Your task to perform on an android device: choose inbox layout in the gmail app Image 0: 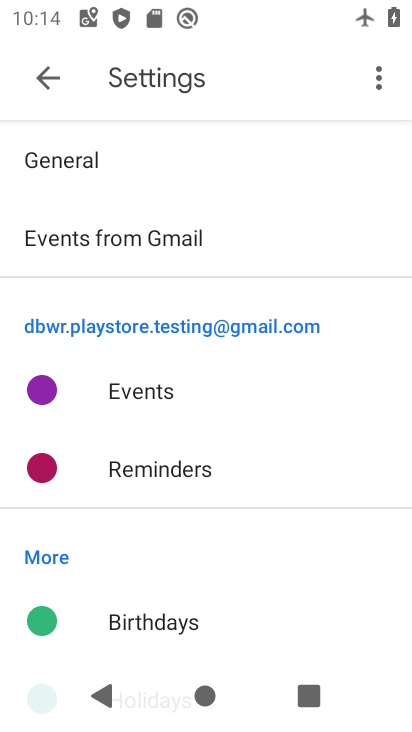
Step 0: press home button
Your task to perform on an android device: choose inbox layout in the gmail app Image 1: 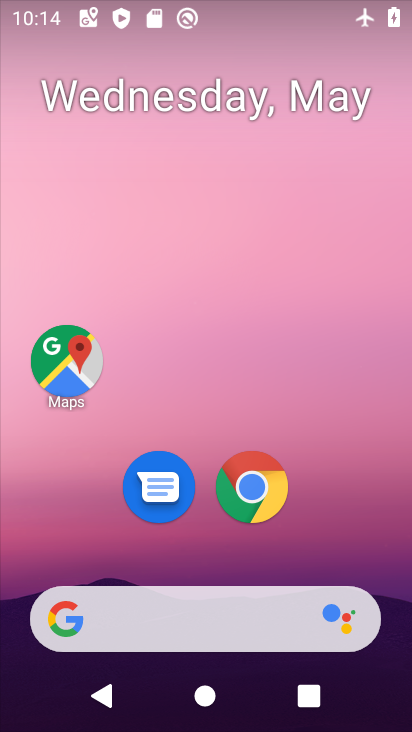
Step 1: drag from (190, 587) to (43, 215)
Your task to perform on an android device: choose inbox layout in the gmail app Image 2: 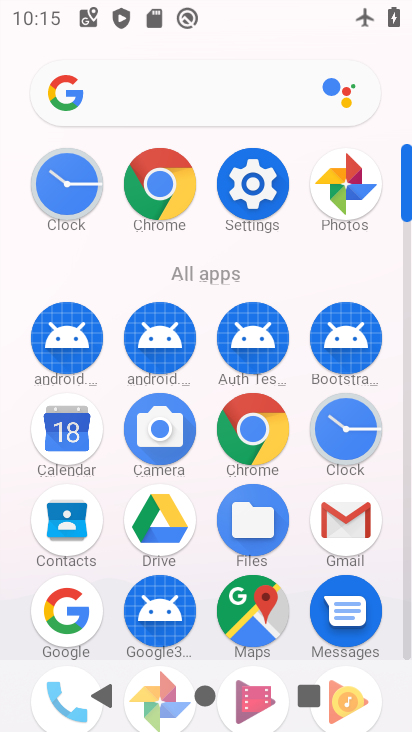
Step 2: click (352, 543)
Your task to perform on an android device: choose inbox layout in the gmail app Image 3: 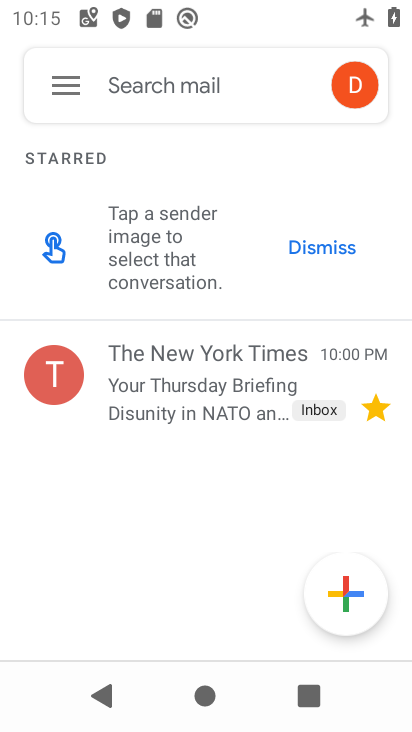
Step 3: click (50, 82)
Your task to perform on an android device: choose inbox layout in the gmail app Image 4: 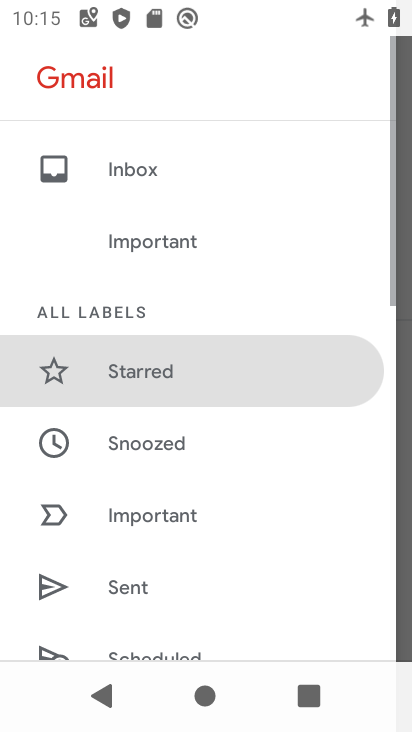
Step 4: drag from (151, 562) to (172, 16)
Your task to perform on an android device: choose inbox layout in the gmail app Image 5: 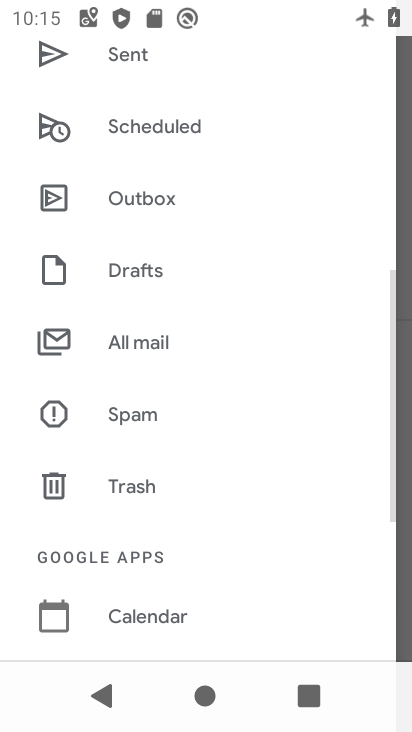
Step 5: drag from (196, 565) to (231, 45)
Your task to perform on an android device: choose inbox layout in the gmail app Image 6: 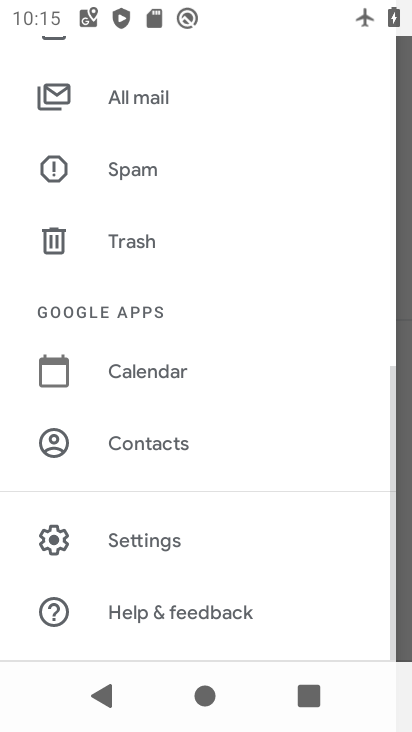
Step 6: click (160, 543)
Your task to perform on an android device: choose inbox layout in the gmail app Image 7: 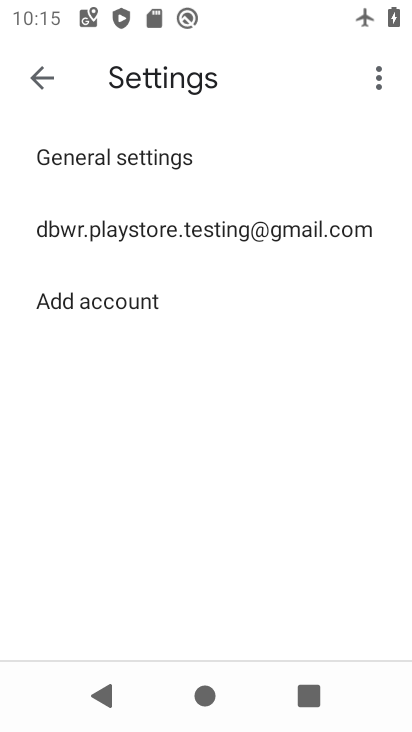
Step 7: click (150, 214)
Your task to perform on an android device: choose inbox layout in the gmail app Image 8: 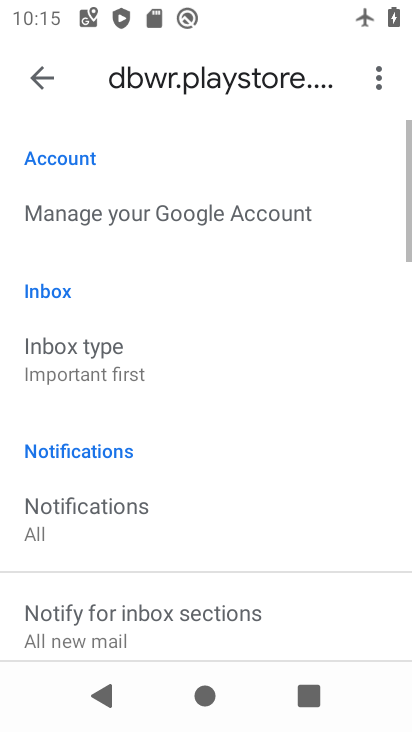
Step 8: click (97, 351)
Your task to perform on an android device: choose inbox layout in the gmail app Image 9: 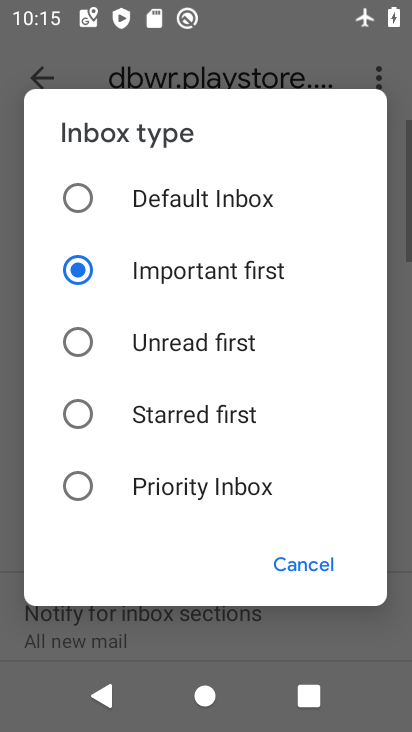
Step 9: click (136, 217)
Your task to perform on an android device: choose inbox layout in the gmail app Image 10: 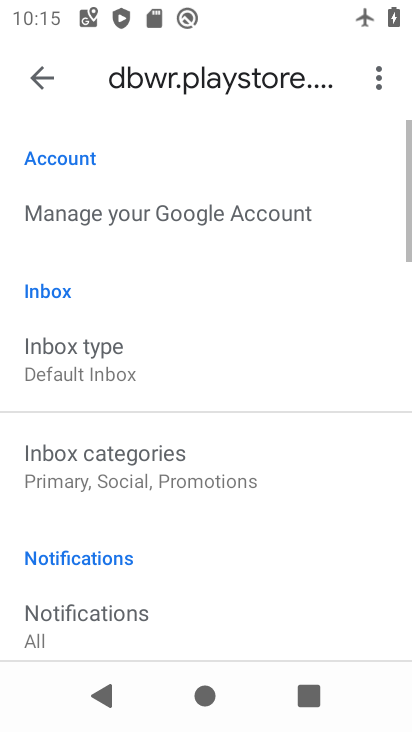
Step 10: click (56, 64)
Your task to perform on an android device: choose inbox layout in the gmail app Image 11: 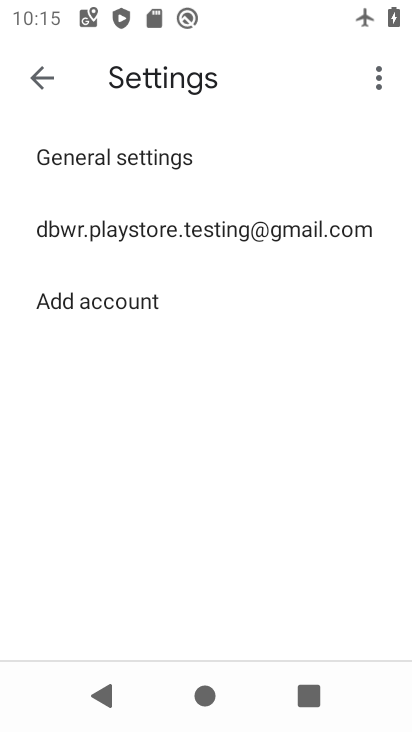
Step 11: click (56, 64)
Your task to perform on an android device: choose inbox layout in the gmail app Image 12: 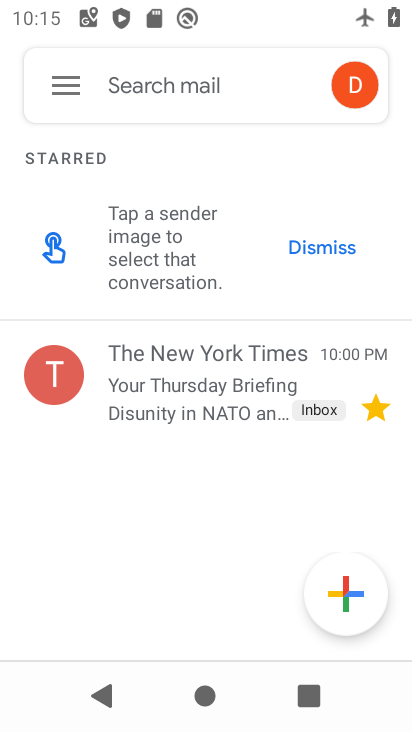
Step 12: click (57, 92)
Your task to perform on an android device: choose inbox layout in the gmail app Image 13: 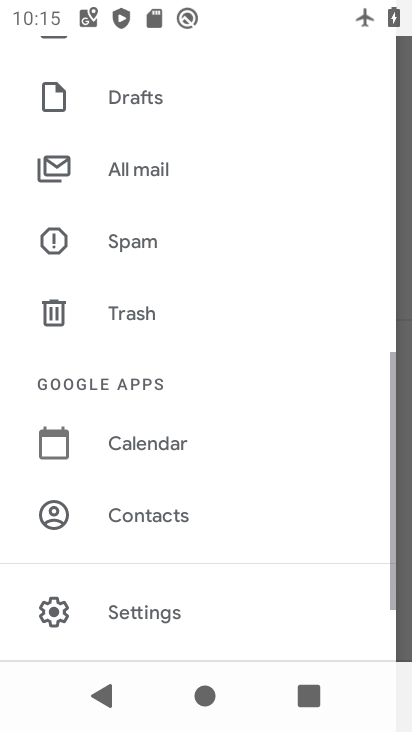
Step 13: drag from (126, 145) to (172, 618)
Your task to perform on an android device: choose inbox layout in the gmail app Image 14: 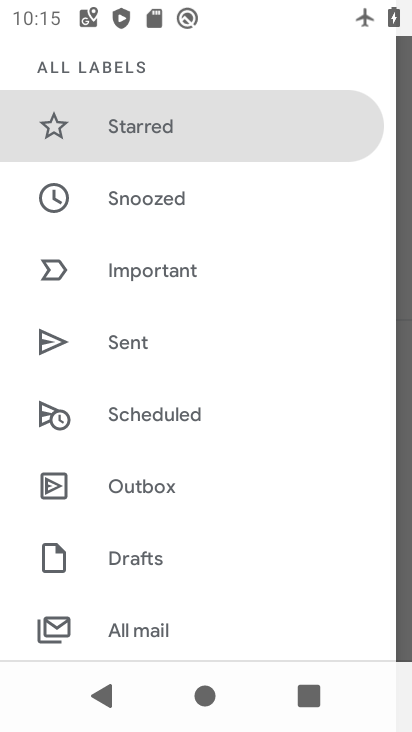
Step 14: drag from (232, 261) to (207, 624)
Your task to perform on an android device: choose inbox layout in the gmail app Image 15: 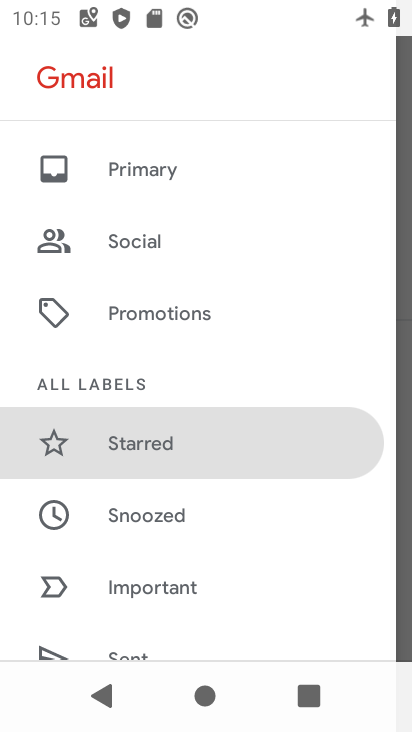
Step 15: drag from (240, 227) to (224, 702)
Your task to perform on an android device: choose inbox layout in the gmail app Image 16: 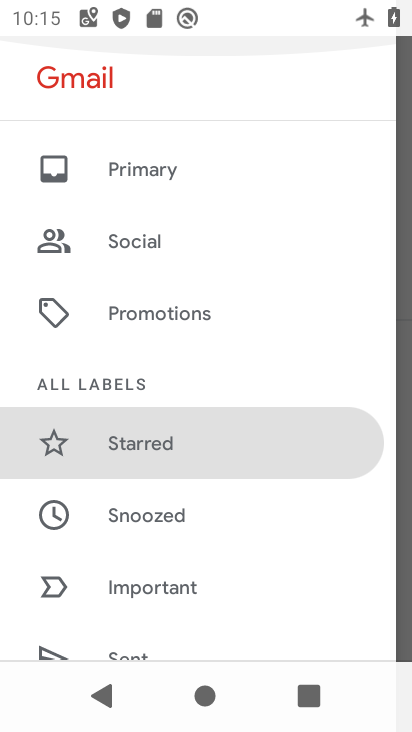
Step 16: drag from (204, 550) to (195, 0)
Your task to perform on an android device: choose inbox layout in the gmail app Image 17: 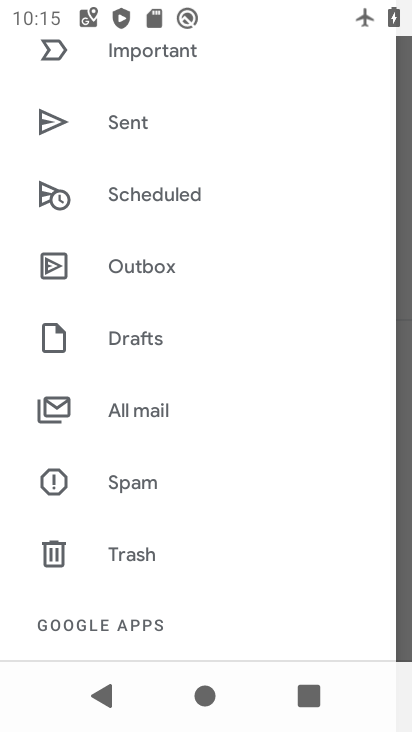
Step 17: drag from (175, 596) to (131, 163)
Your task to perform on an android device: choose inbox layout in the gmail app Image 18: 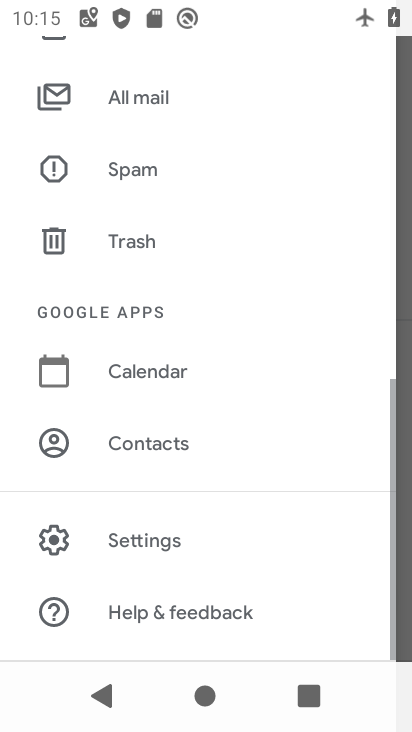
Step 18: click (162, 530)
Your task to perform on an android device: choose inbox layout in the gmail app Image 19: 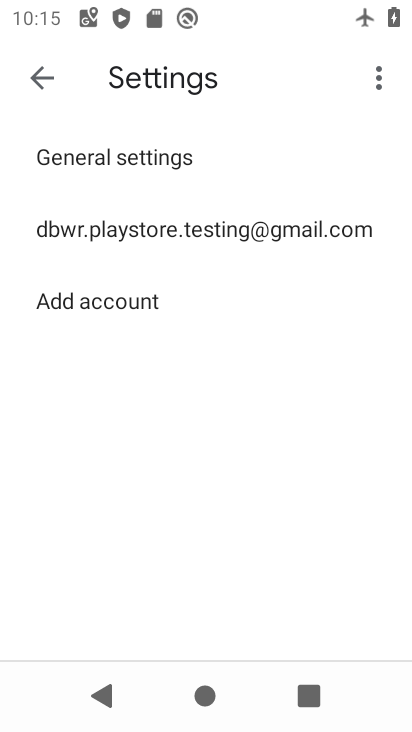
Step 19: click (140, 230)
Your task to perform on an android device: choose inbox layout in the gmail app Image 20: 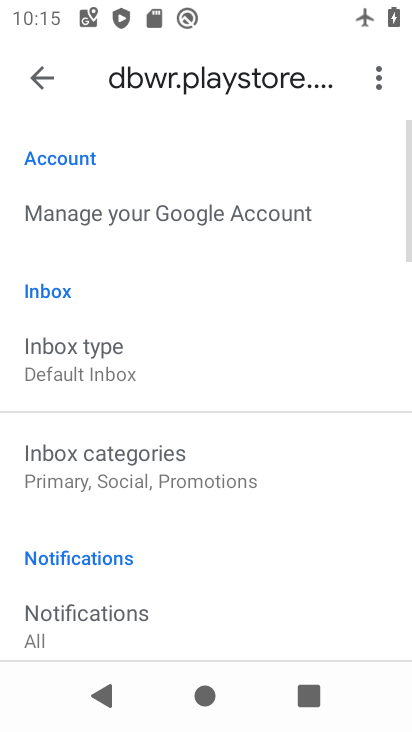
Step 20: click (98, 353)
Your task to perform on an android device: choose inbox layout in the gmail app Image 21: 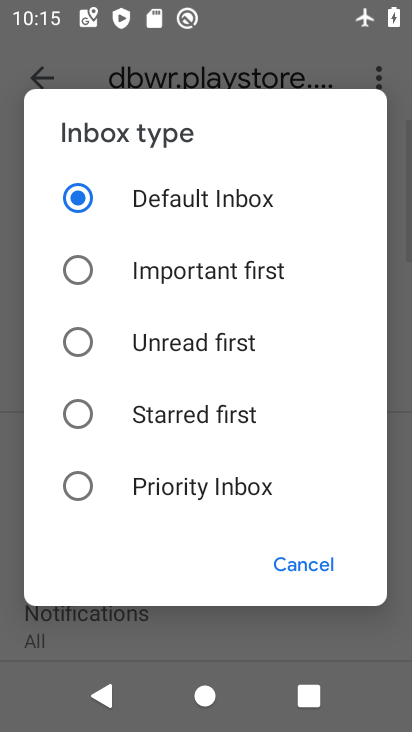
Step 21: click (156, 494)
Your task to perform on an android device: choose inbox layout in the gmail app Image 22: 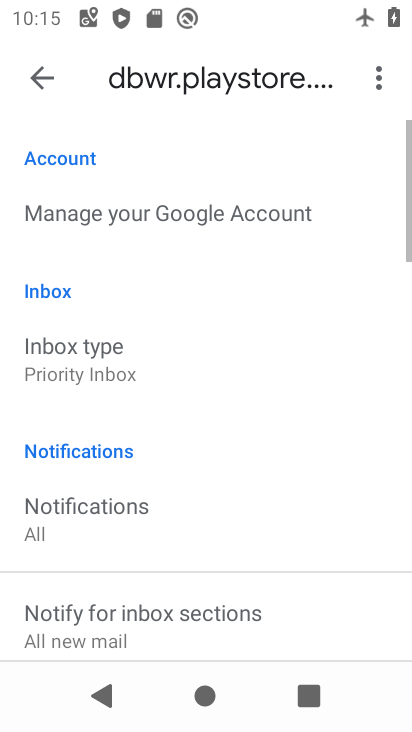
Step 22: task complete